Your task to perform on an android device: check google app version Image 0: 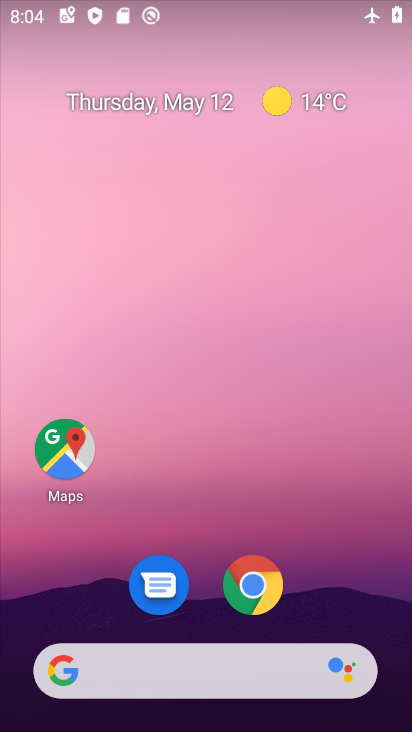
Step 0: click (256, 673)
Your task to perform on an android device: check google app version Image 1: 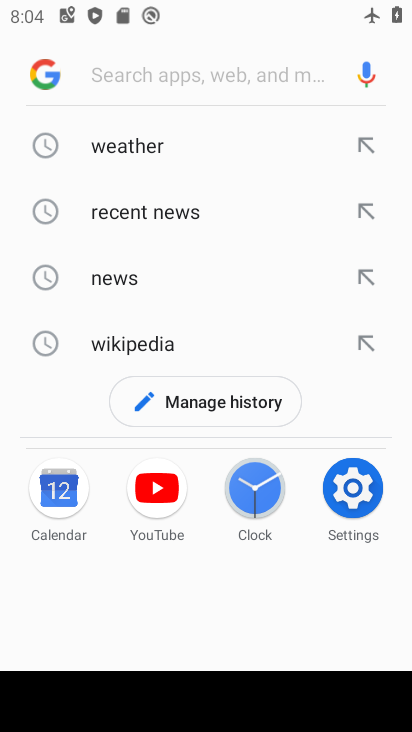
Step 1: click (41, 74)
Your task to perform on an android device: check google app version Image 2: 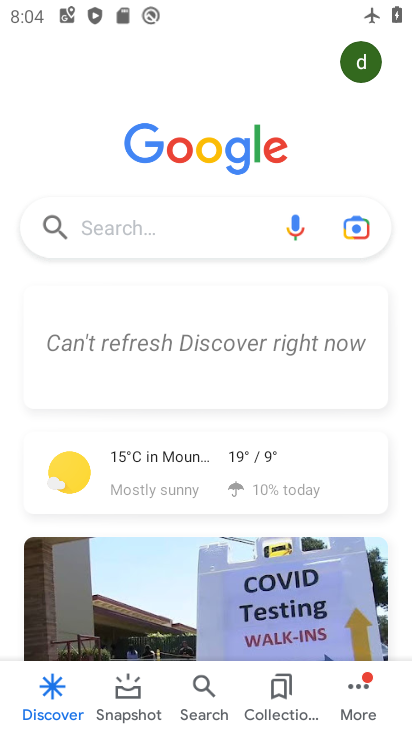
Step 2: click (365, 686)
Your task to perform on an android device: check google app version Image 3: 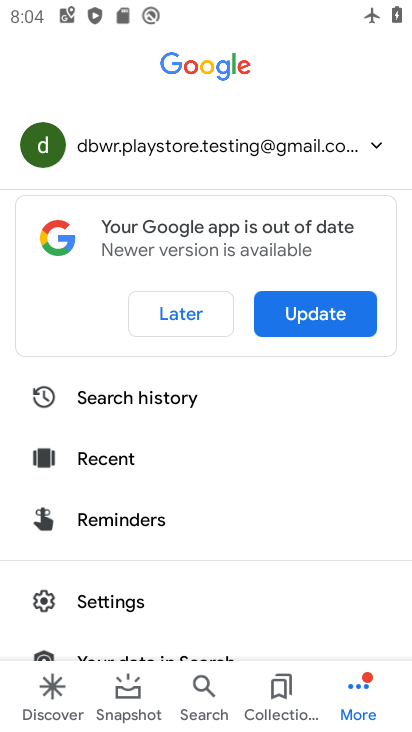
Step 3: click (240, 607)
Your task to perform on an android device: check google app version Image 4: 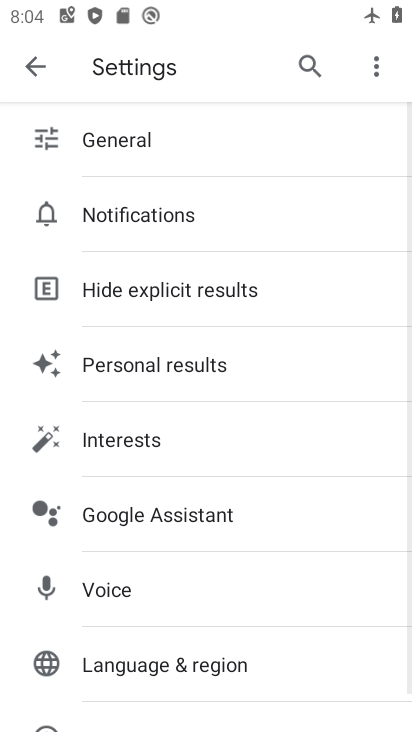
Step 4: drag from (240, 605) to (231, 259)
Your task to perform on an android device: check google app version Image 5: 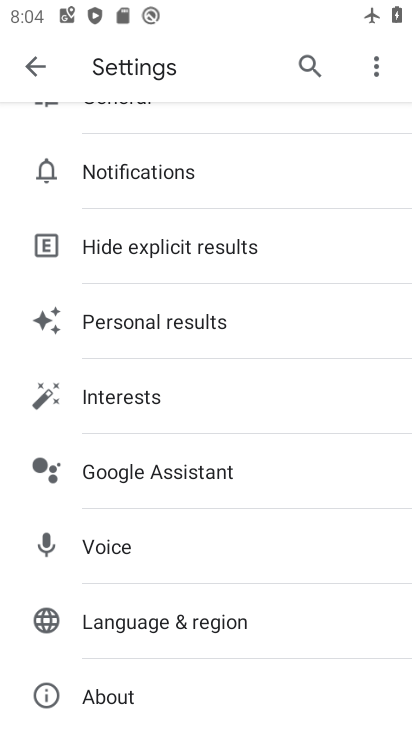
Step 5: click (124, 682)
Your task to perform on an android device: check google app version Image 6: 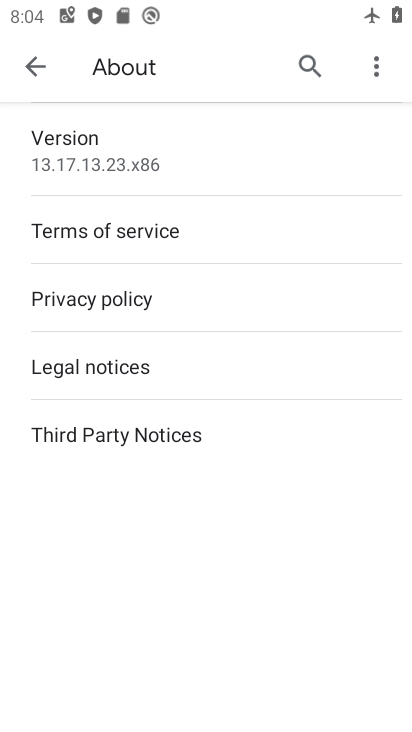
Step 6: task complete